Your task to perform on an android device: Toggle the flashlight Image 0: 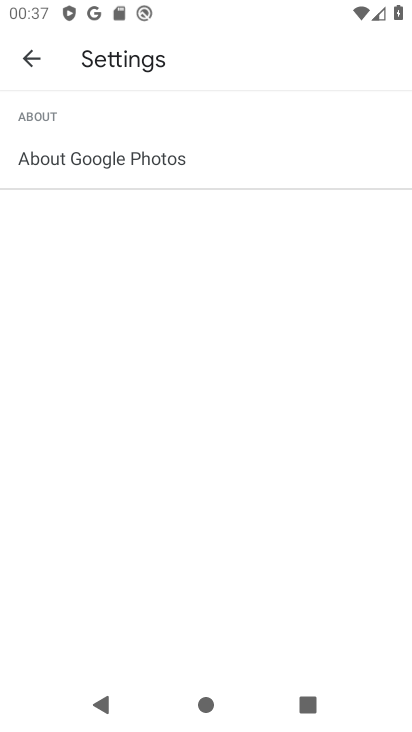
Step 0: press home button
Your task to perform on an android device: Toggle the flashlight Image 1: 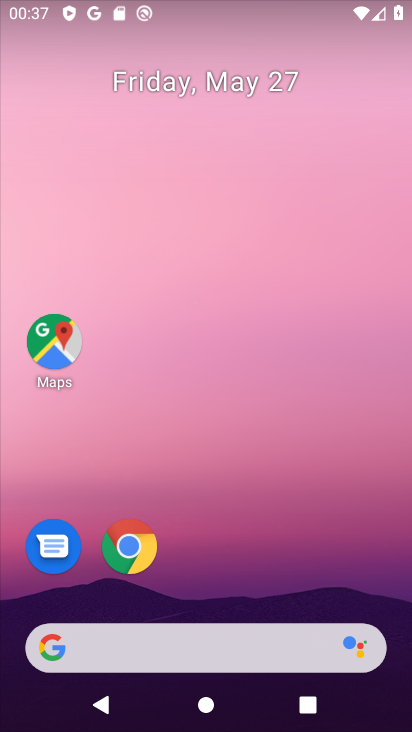
Step 1: drag from (375, 588) to (370, 98)
Your task to perform on an android device: Toggle the flashlight Image 2: 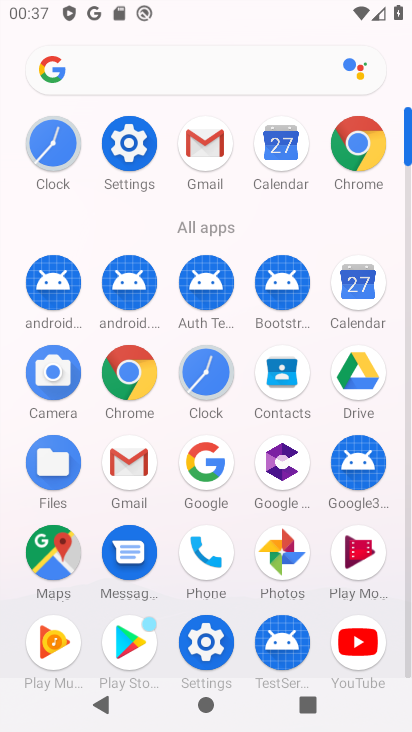
Step 2: click (146, 149)
Your task to perform on an android device: Toggle the flashlight Image 3: 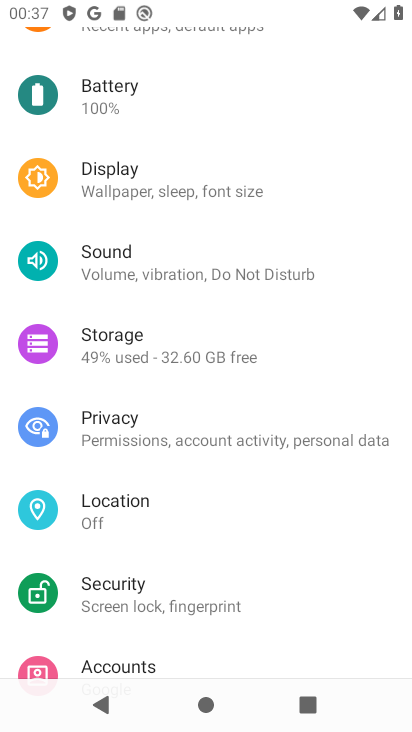
Step 3: drag from (238, 122) to (305, 531)
Your task to perform on an android device: Toggle the flashlight Image 4: 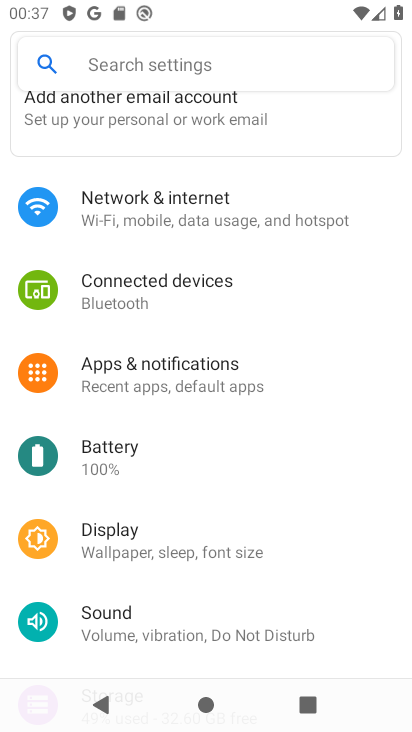
Step 4: click (219, 73)
Your task to perform on an android device: Toggle the flashlight Image 5: 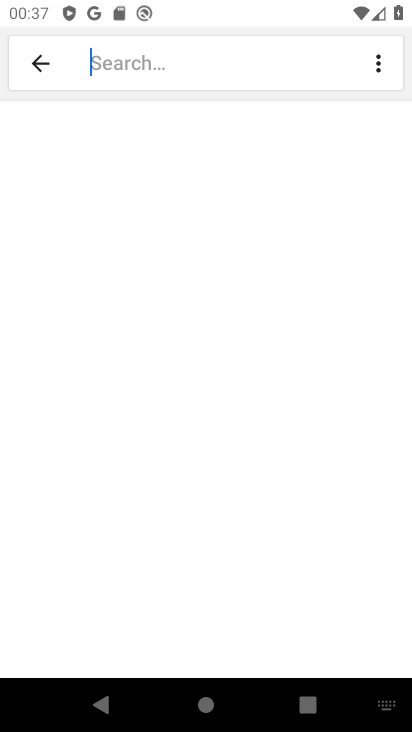
Step 5: type "flashlight"
Your task to perform on an android device: Toggle the flashlight Image 6: 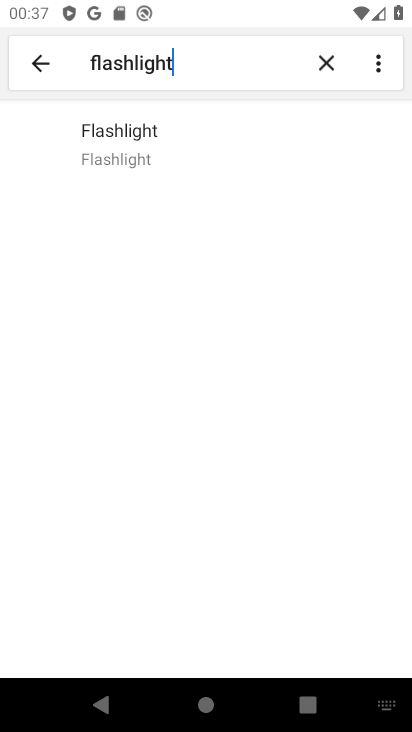
Step 6: task complete